Your task to perform on an android device: Check the news Image 0: 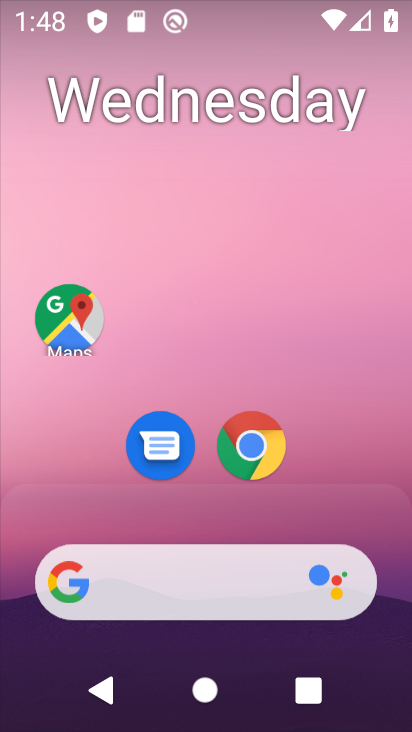
Step 0: click (250, 440)
Your task to perform on an android device: Check the news Image 1: 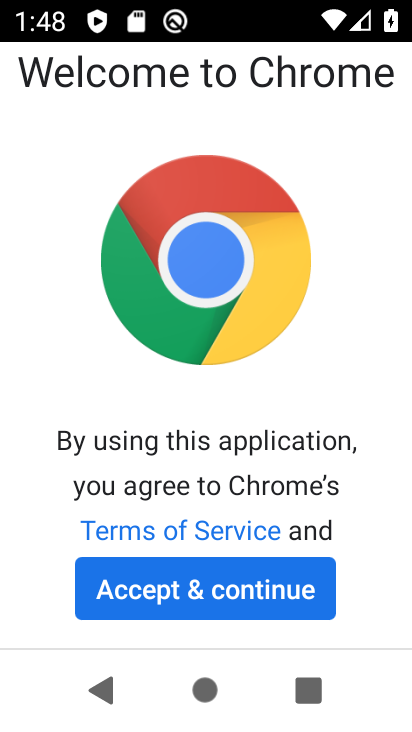
Step 1: click (192, 593)
Your task to perform on an android device: Check the news Image 2: 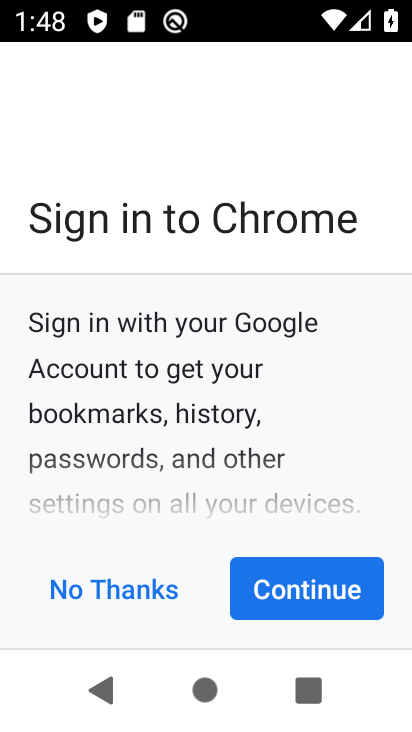
Step 2: click (133, 589)
Your task to perform on an android device: Check the news Image 3: 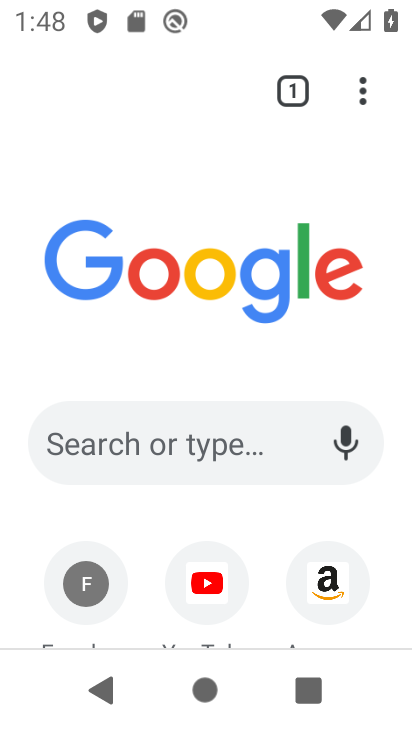
Step 3: drag from (14, 522) to (205, 82)
Your task to perform on an android device: Check the news Image 4: 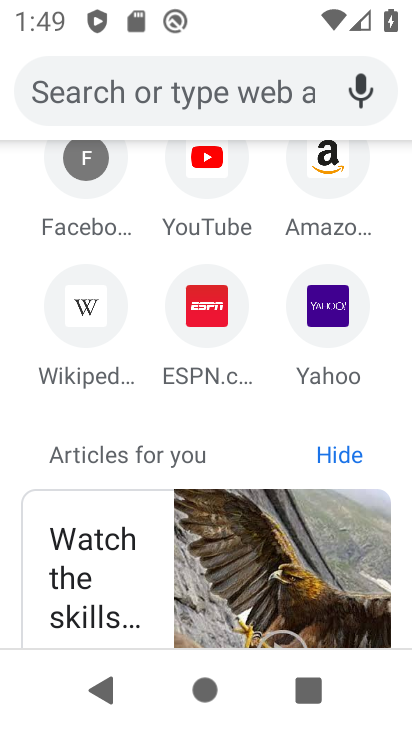
Step 4: click (205, 71)
Your task to perform on an android device: Check the news Image 5: 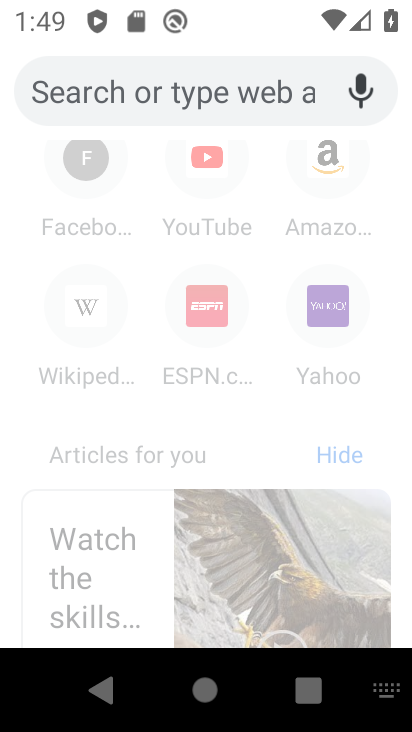
Step 5: press home button
Your task to perform on an android device: Check the news Image 6: 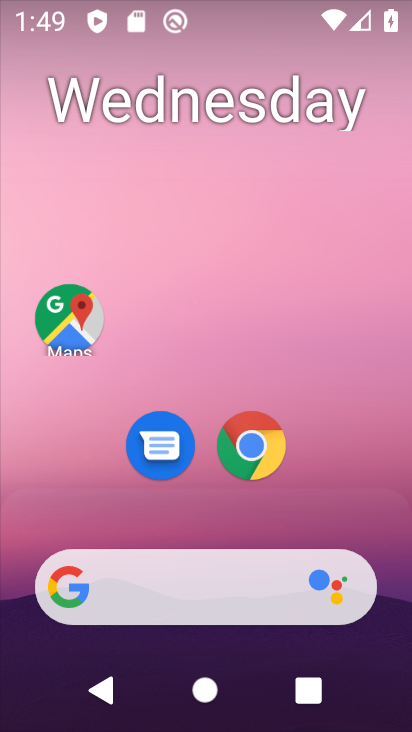
Step 6: click (168, 596)
Your task to perform on an android device: Check the news Image 7: 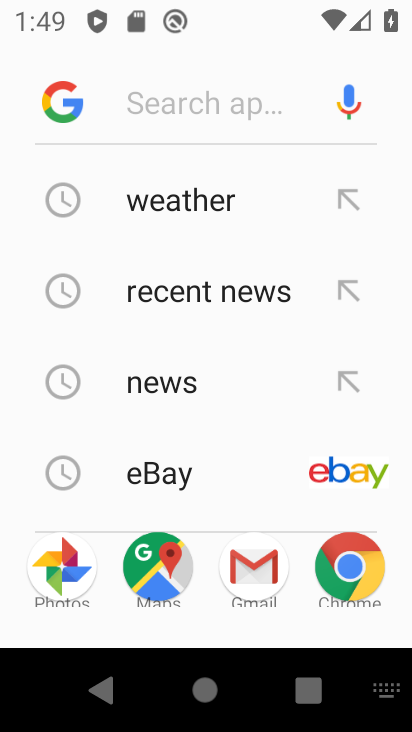
Step 7: click (159, 398)
Your task to perform on an android device: Check the news Image 8: 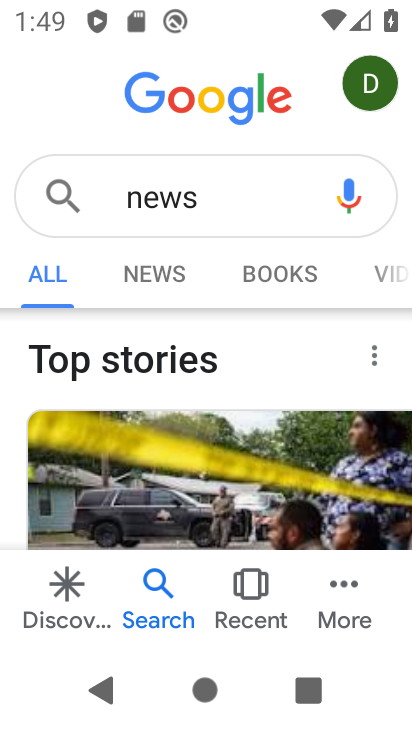
Step 8: task complete